Your task to perform on an android device: open device folders in google photos Image 0: 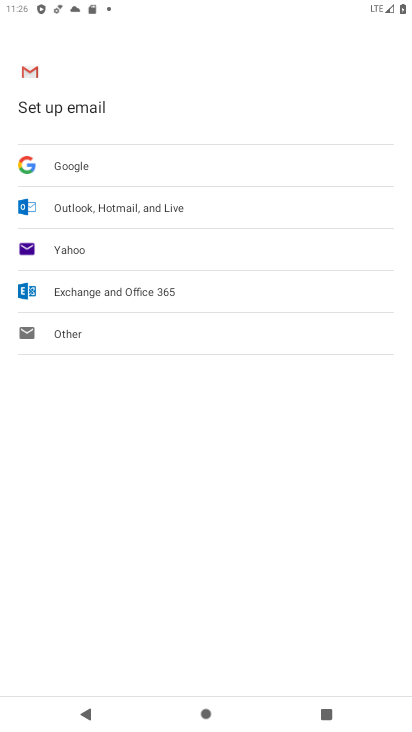
Step 0: press home button
Your task to perform on an android device: open device folders in google photos Image 1: 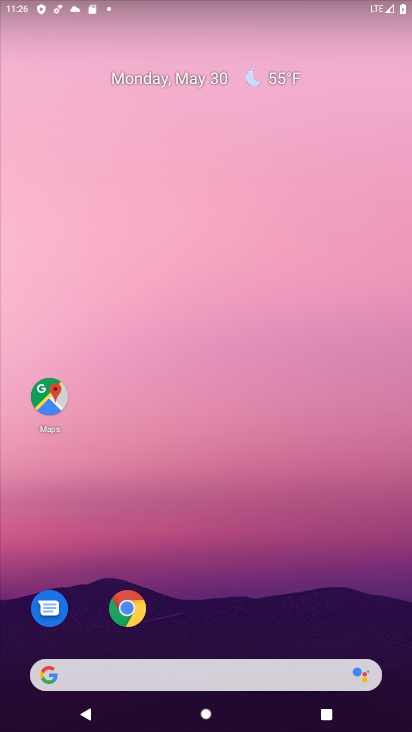
Step 1: drag from (247, 647) to (291, 52)
Your task to perform on an android device: open device folders in google photos Image 2: 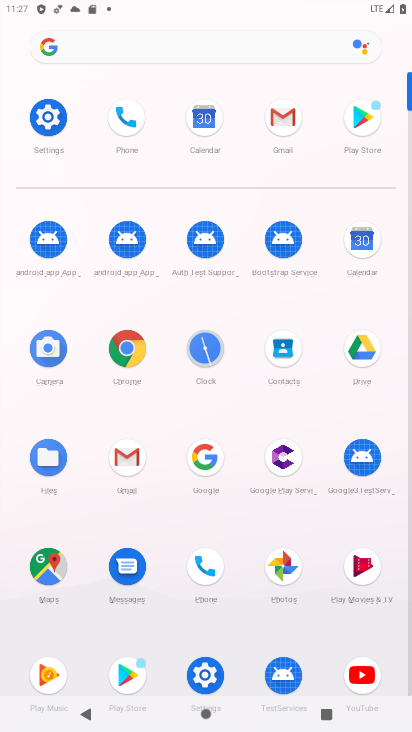
Step 2: click (282, 565)
Your task to perform on an android device: open device folders in google photos Image 3: 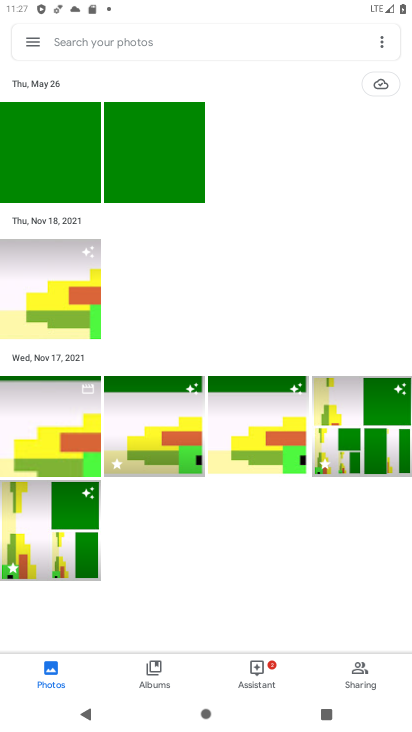
Step 3: click (39, 37)
Your task to perform on an android device: open device folders in google photos Image 4: 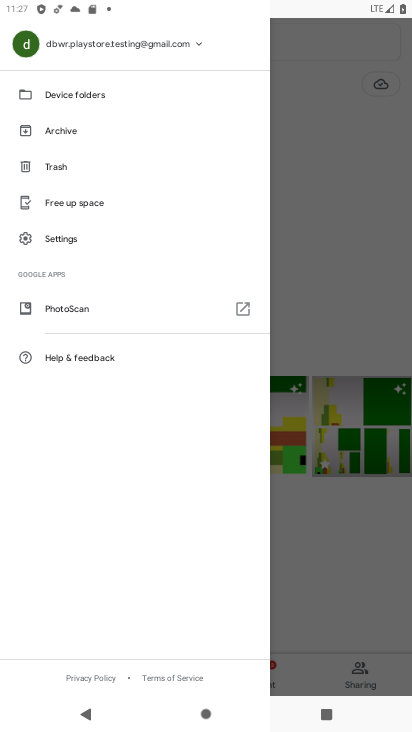
Step 4: click (50, 107)
Your task to perform on an android device: open device folders in google photos Image 5: 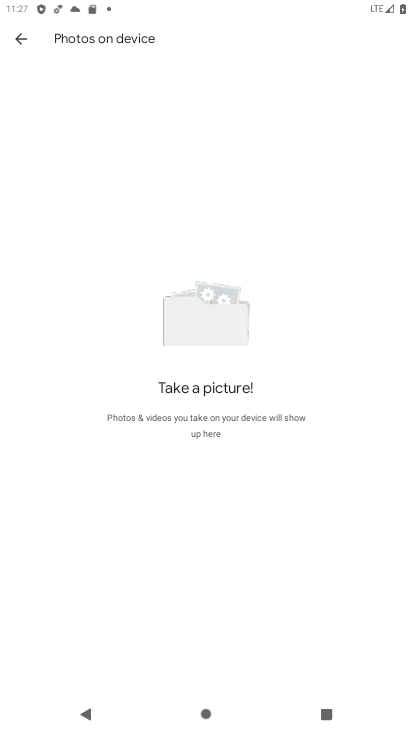
Step 5: task complete